Your task to perform on an android device: turn off picture-in-picture Image 0: 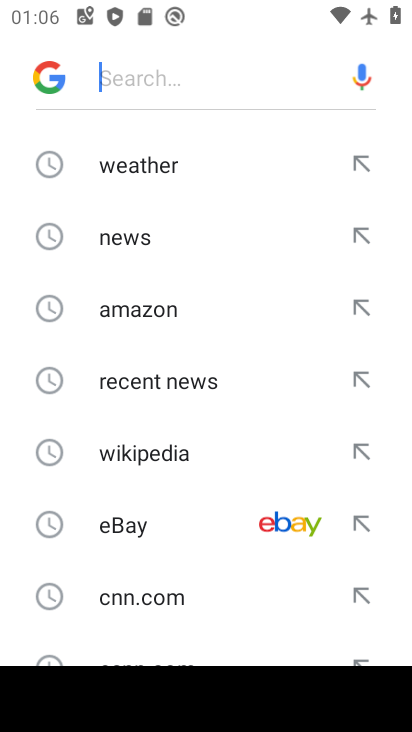
Step 0: press home button
Your task to perform on an android device: turn off picture-in-picture Image 1: 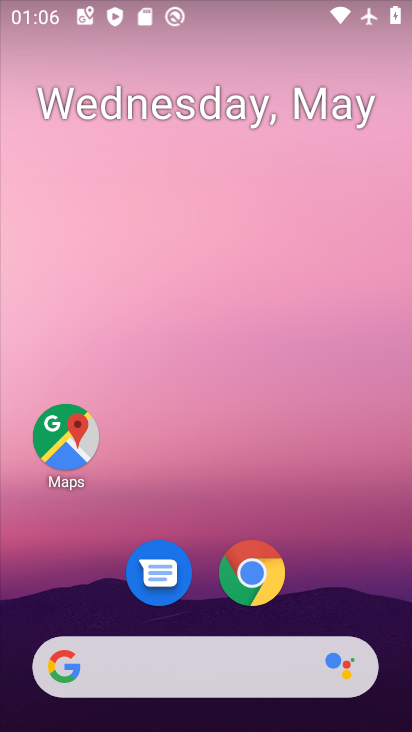
Step 1: drag from (271, 582) to (296, 209)
Your task to perform on an android device: turn off picture-in-picture Image 2: 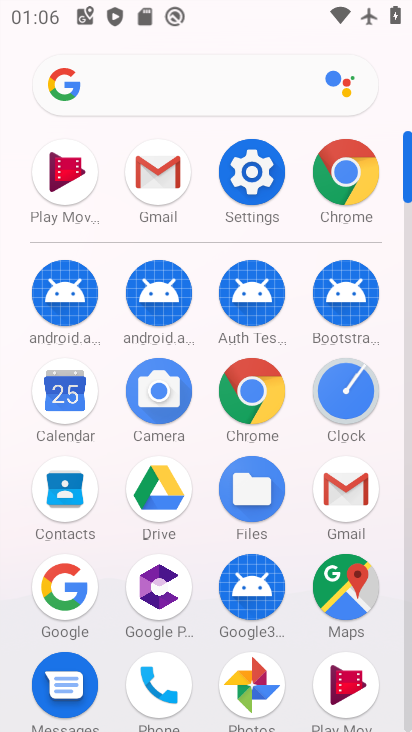
Step 2: click (257, 172)
Your task to perform on an android device: turn off picture-in-picture Image 3: 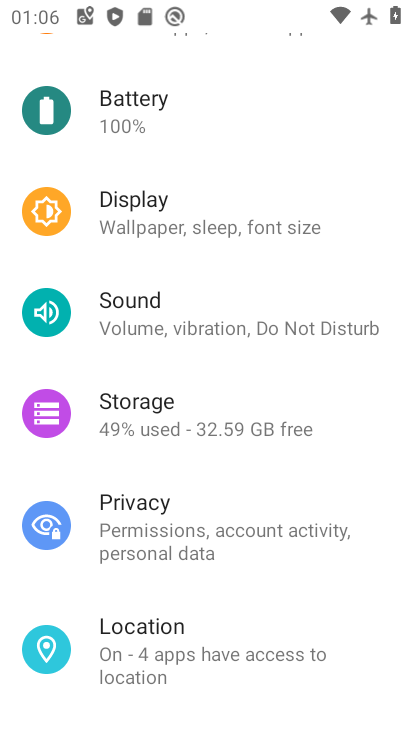
Step 3: drag from (198, 226) to (211, 532)
Your task to perform on an android device: turn off picture-in-picture Image 4: 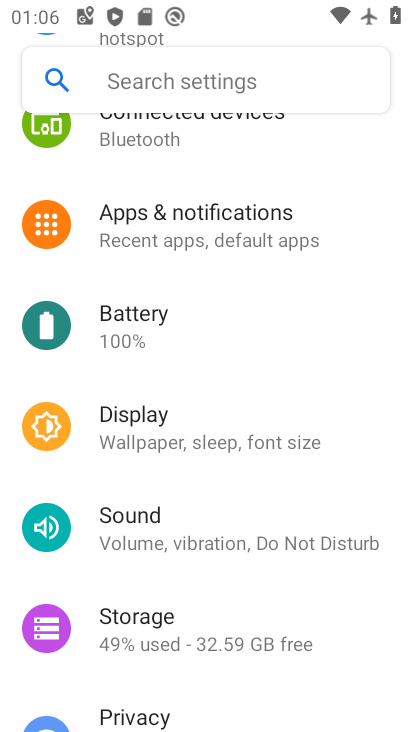
Step 4: drag from (170, 183) to (193, 441)
Your task to perform on an android device: turn off picture-in-picture Image 5: 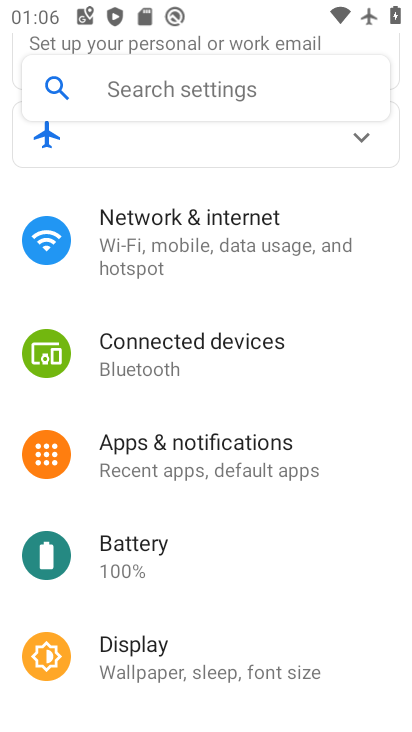
Step 5: click (178, 248)
Your task to perform on an android device: turn off picture-in-picture Image 6: 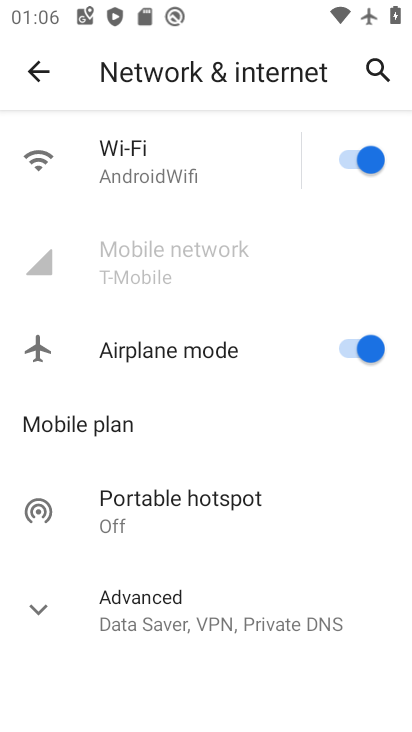
Step 6: click (35, 64)
Your task to perform on an android device: turn off picture-in-picture Image 7: 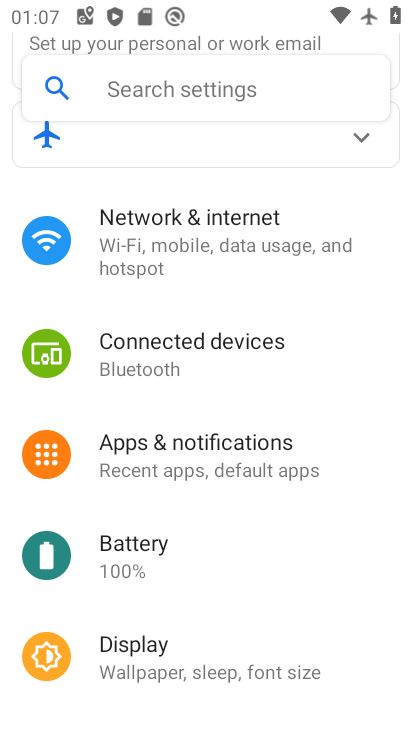
Step 7: click (209, 466)
Your task to perform on an android device: turn off picture-in-picture Image 8: 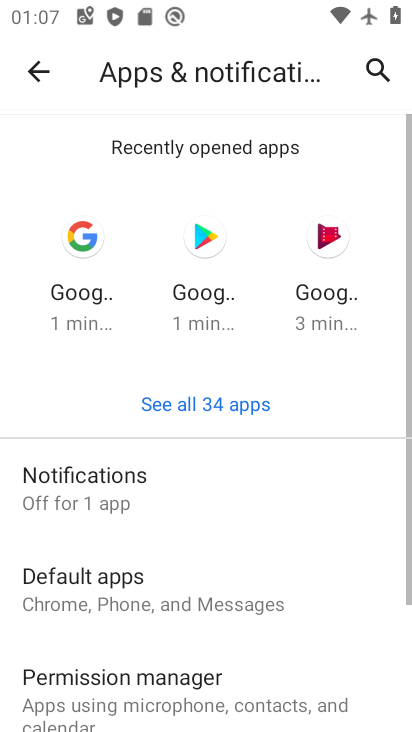
Step 8: drag from (243, 684) to (204, 421)
Your task to perform on an android device: turn off picture-in-picture Image 9: 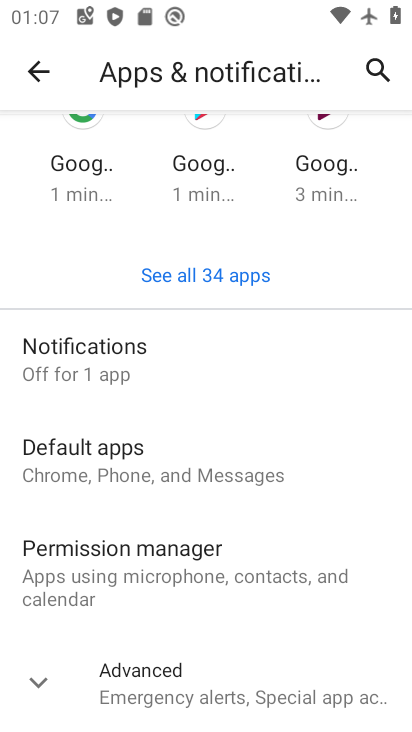
Step 9: click (190, 698)
Your task to perform on an android device: turn off picture-in-picture Image 10: 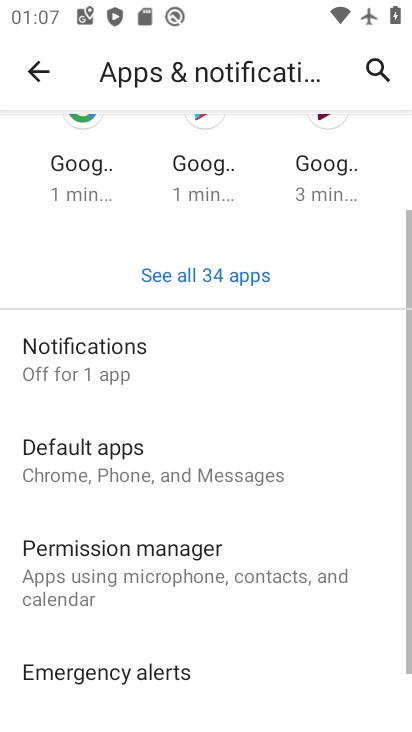
Step 10: drag from (266, 639) to (270, 167)
Your task to perform on an android device: turn off picture-in-picture Image 11: 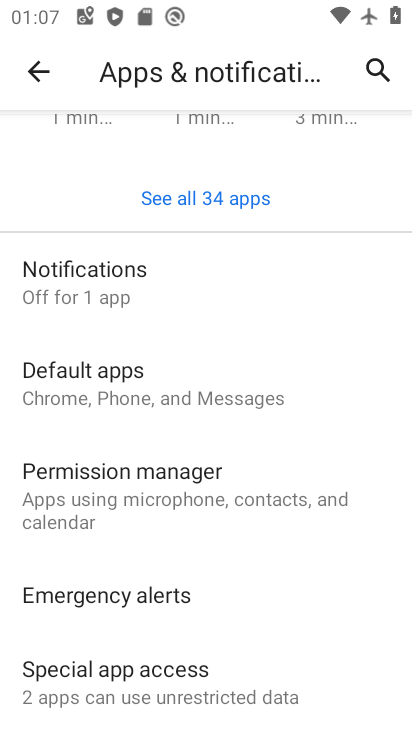
Step 11: click (167, 656)
Your task to perform on an android device: turn off picture-in-picture Image 12: 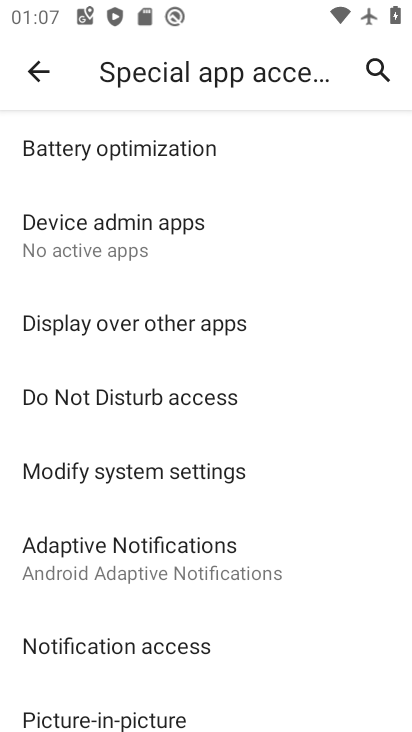
Step 12: drag from (151, 597) to (189, 304)
Your task to perform on an android device: turn off picture-in-picture Image 13: 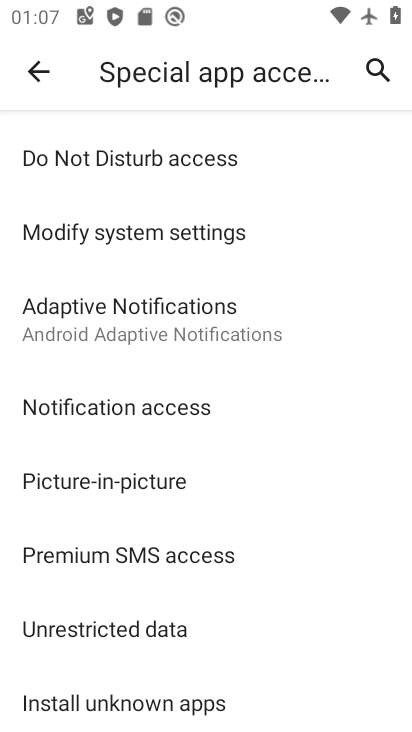
Step 13: click (140, 516)
Your task to perform on an android device: turn off picture-in-picture Image 14: 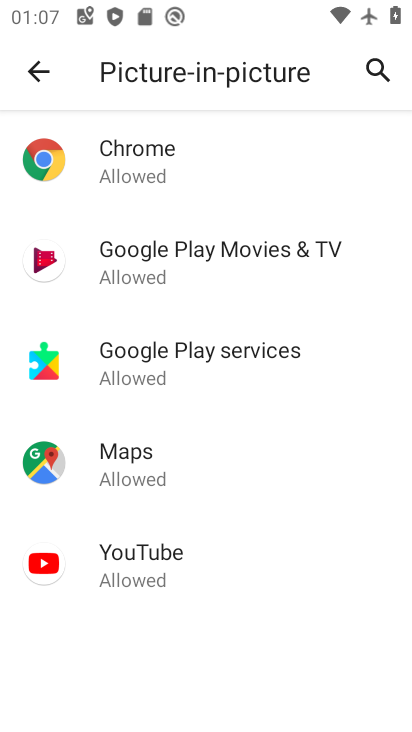
Step 14: click (236, 528)
Your task to perform on an android device: turn off picture-in-picture Image 15: 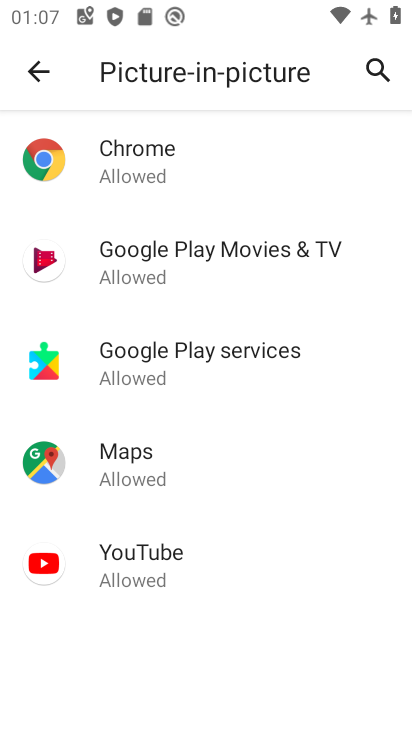
Step 15: click (190, 596)
Your task to perform on an android device: turn off picture-in-picture Image 16: 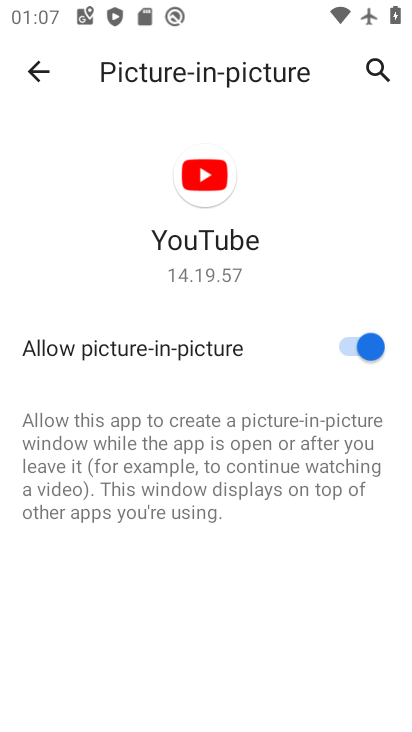
Step 16: click (357, 341)
Your task to perform on an android device: turn off picture-in-picture Image 17: 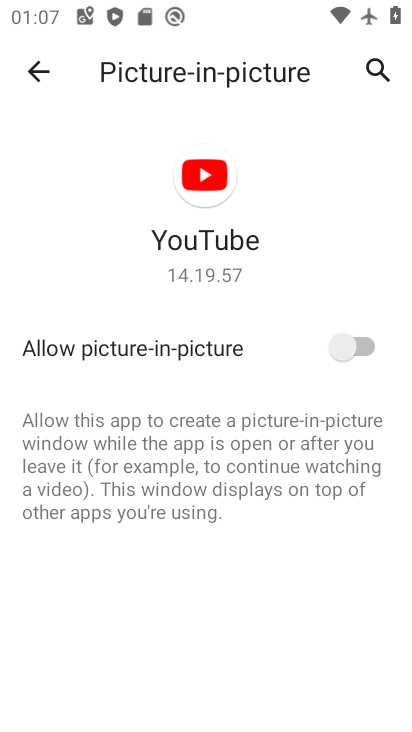
Step 17: task complete